Your task to perform on an android device: delete the emails in spam in the gmail app Image 0: 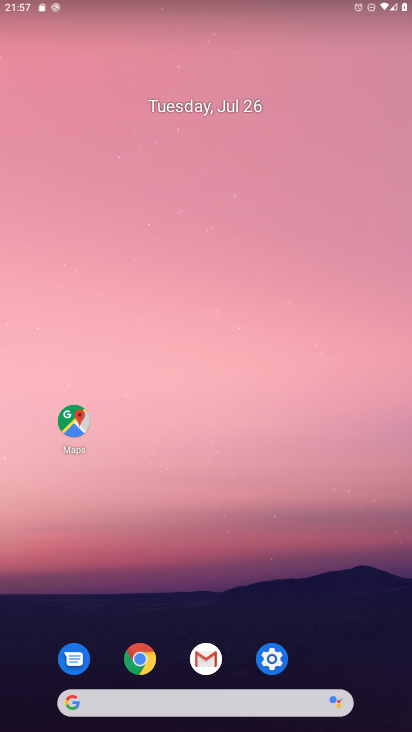
Step 0: click (210, 665)
Your task to perform on an android device: delete the emails in spam in the gmail app Image 1: 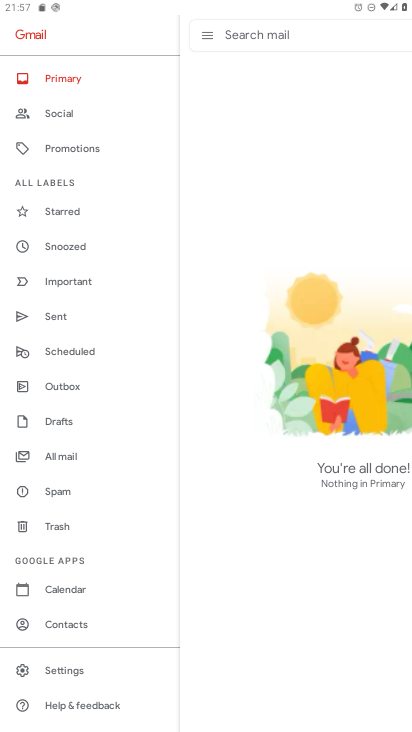
Step 1: click (54, 488)
Your task to perform on an android device: delete the emails in spam in the gmail app Image 2: 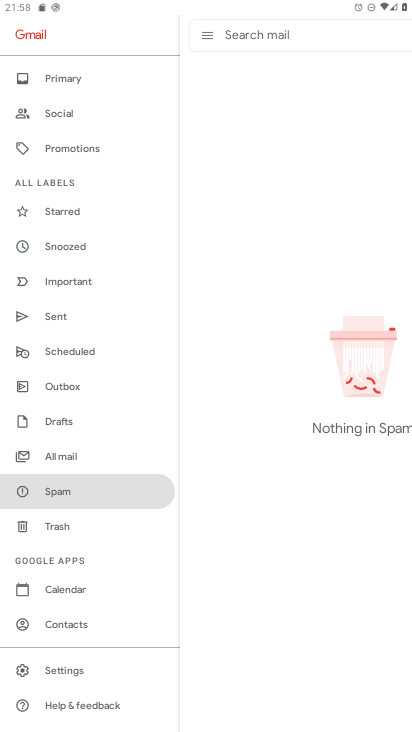
Step 2: task complete